Your task to perform on an android device: turn vacation reply on in the gmail app Image 0: 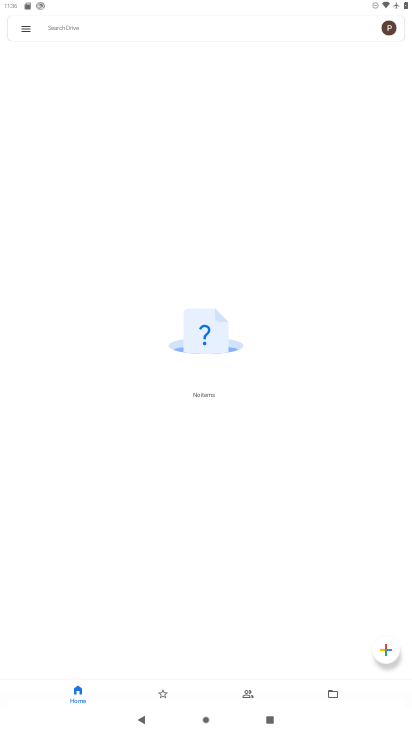
Step 0: press home button
Your task to perform on an android device: turn vacation reply on in the gmail app Image 1: 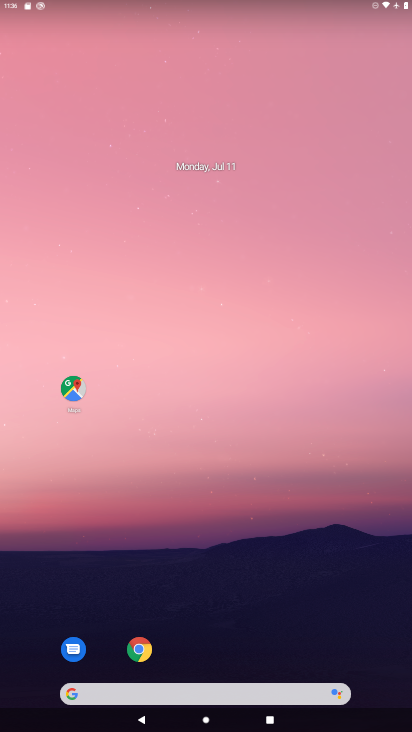
Step 1: drag from (295, 555) to (216, 96)
Your task to perform on an android device: turn vacation reply on in the gmail app Image 2: 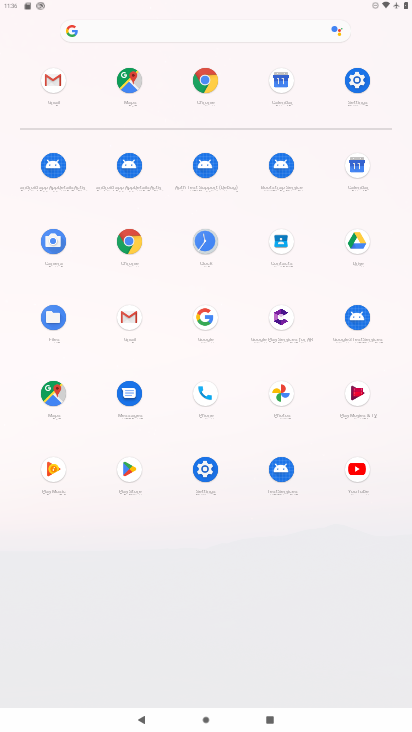
Step 2: click (60, 80)
Your task to perform on an android device: turn vacation reply on in the gmail app Image 3: 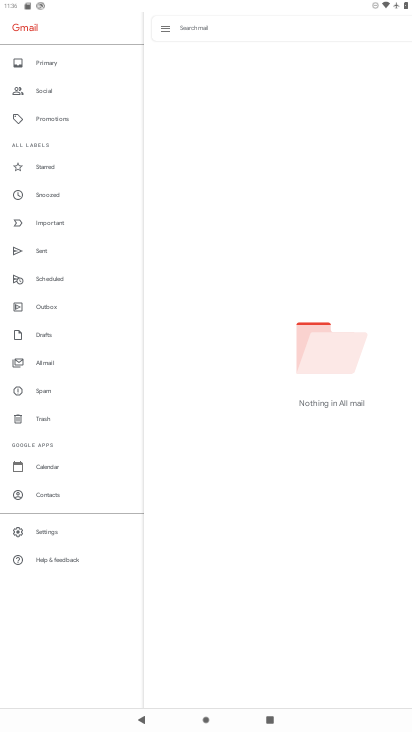
Step 3: click (52, 529)
Your task to perform on an android device: turn vacation reply on in the gmail app Image 4: 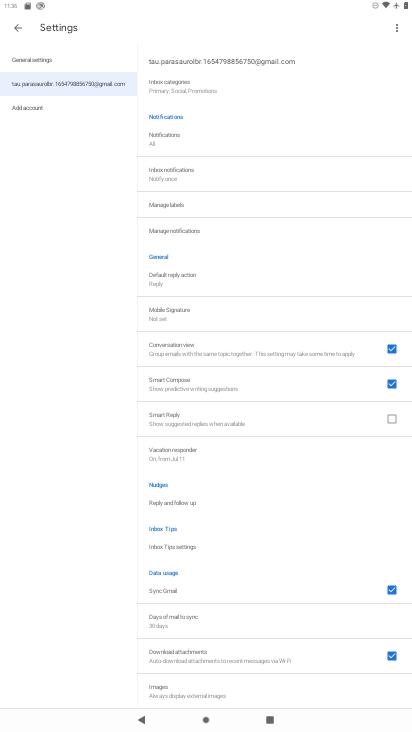
Step 4: drag from (238, 565) to (269, 278)
Your task to perform on an android device: turn vacation reply on in the gmail app Image 5: 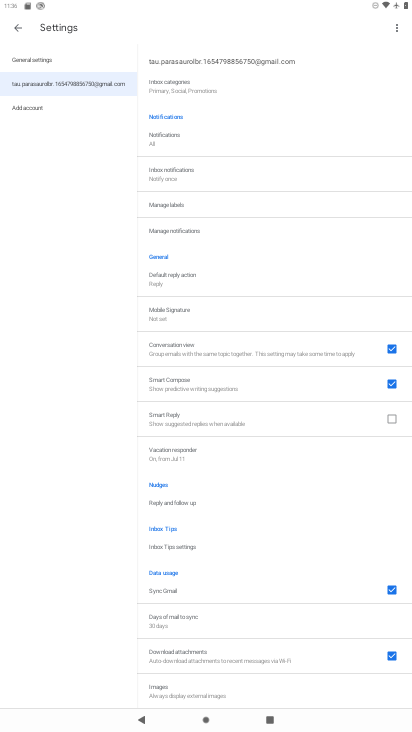
Step 5: click (186, 447)
Your task to perform on an android device: turn vacation reply on in the gmail app Image 6: 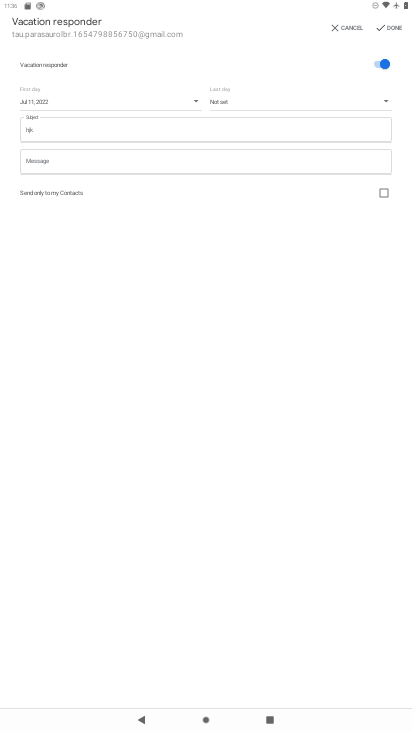
Step 6: task complete